Your task to perform on an android device: toggle airplane mode Image 0: 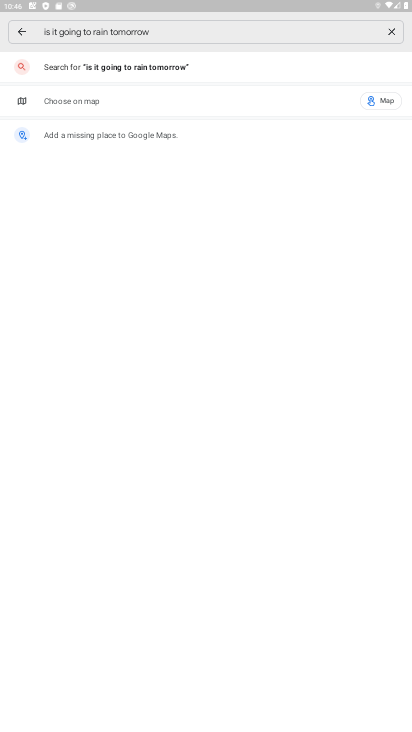
Step 0: press home button
Your task to perform on an android device: toggle airplane mode Image 1: 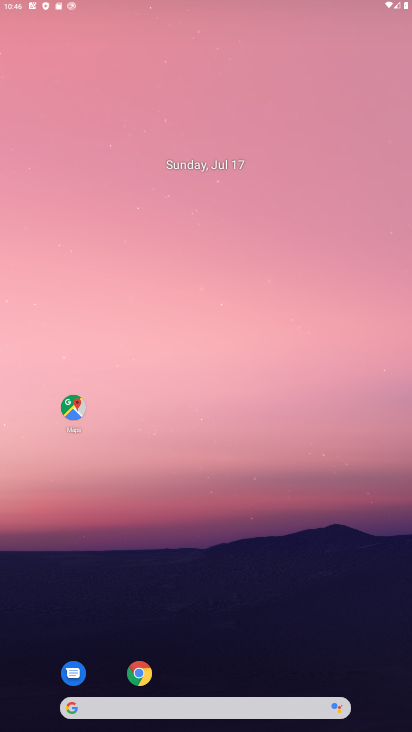
Step 1: drag from (224, 701) to (233, 85)
Your task to perform on an android device: toggle airplane mode Image 2: 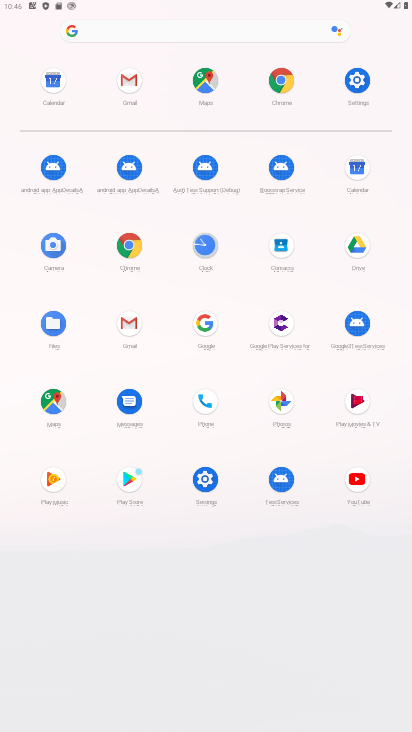
Step 2: click (360, 78)
Your task to perform on an android device: toggle airplane mode Image 3: 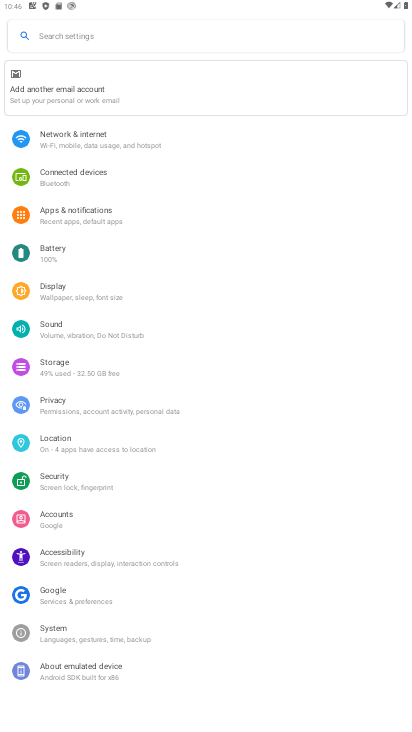
Step 3: click (156, 141)
Your task to perform on an android device: toggle airplane mode Image 4: 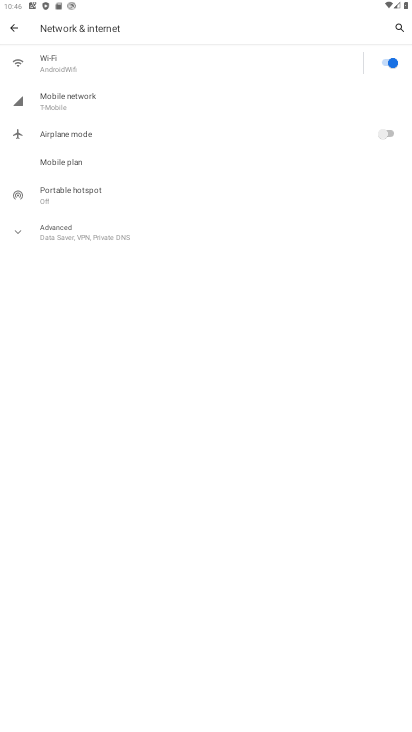
Step 4: click (392, 127)
Your task to perform on an android device: toggle airplane mode Image 5: 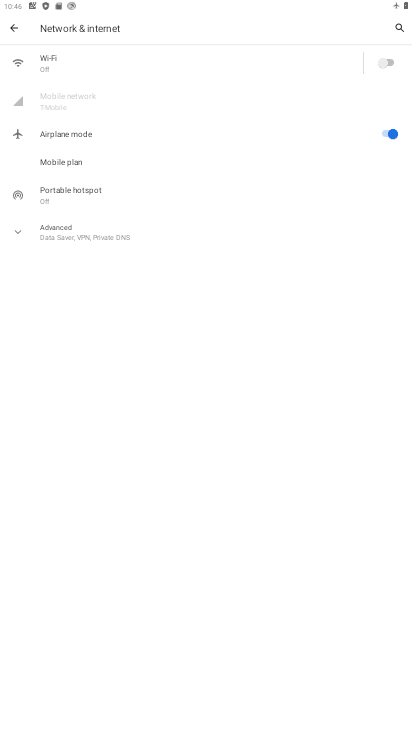
Step 5: task complete